Your task to perform on an android device: change notification settings in the gmail app Image 0: 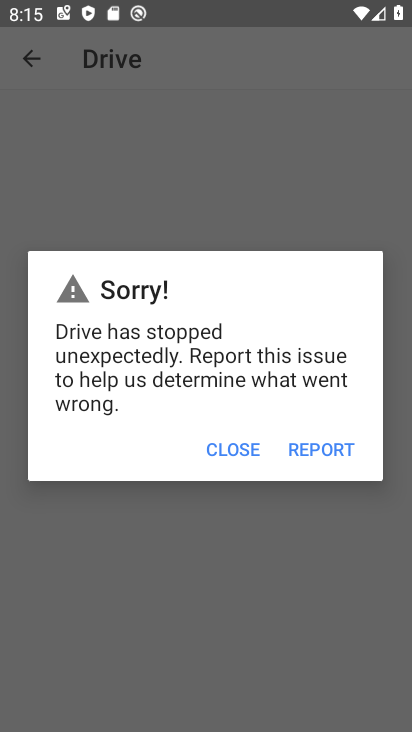
Step 0: press back button
Your task to perform on an android device: change notification settings in the gmail app Image 1: 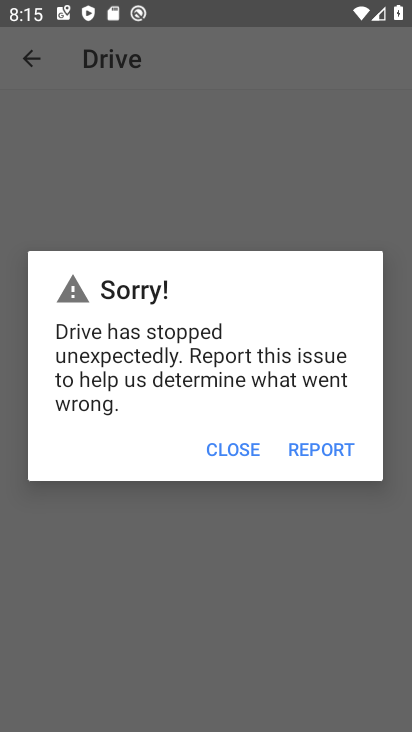
Step 1: press home button
Your task to perform on an android device: change notification settings in the gmail app Image 2: 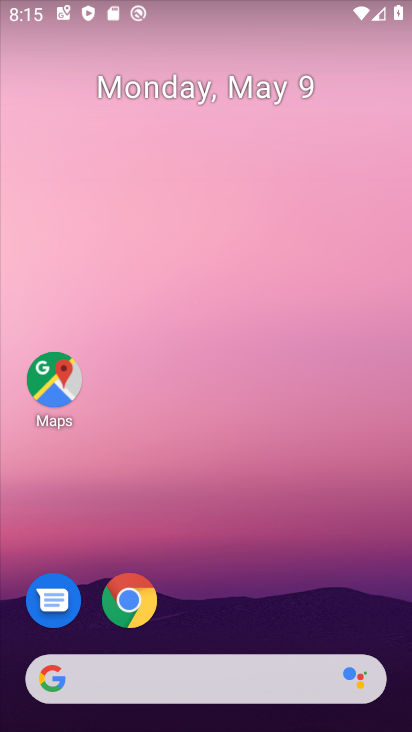
Step 2: drag from (294, 574) to (219, 1)
Your task to perform on an android device: change notification settings in the gmail app Image 3: 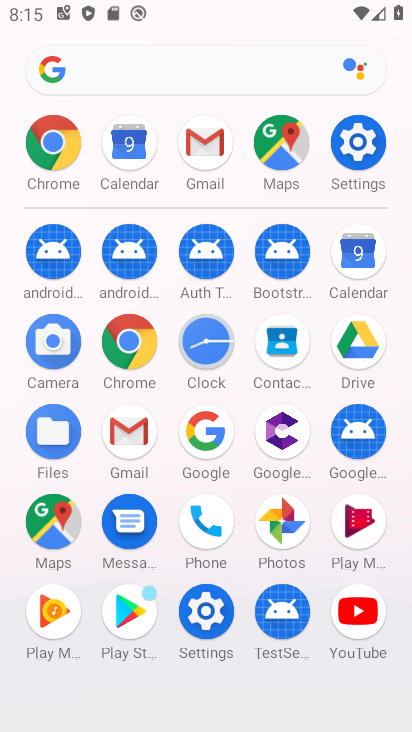
Step 3: click (130, 431)
Your task to perform on an android device: change notification settings in the gmail app Image 4: 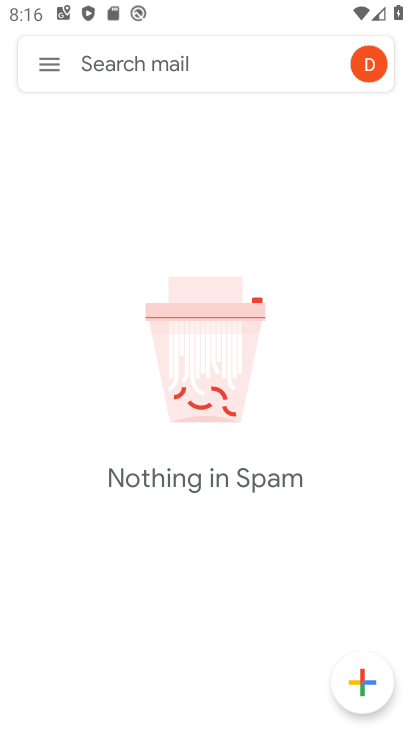
Step 4: press back button
Your task to perform on an android device: change notification settings in the gmail app Image 5: 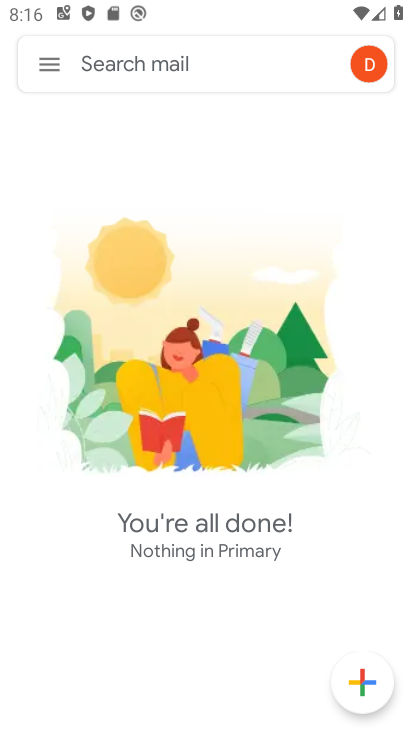
Step 5: press home button
Your task to perform on an android device: change notification settings in the gmail app Image 6: 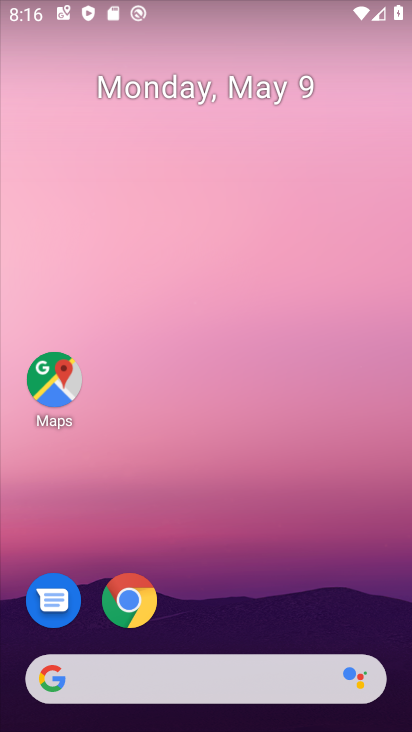
Step 6: drag from (257, 590) to (256, 39)
Your task to perform on an android device: change notification settings in the gmail app Image 7: 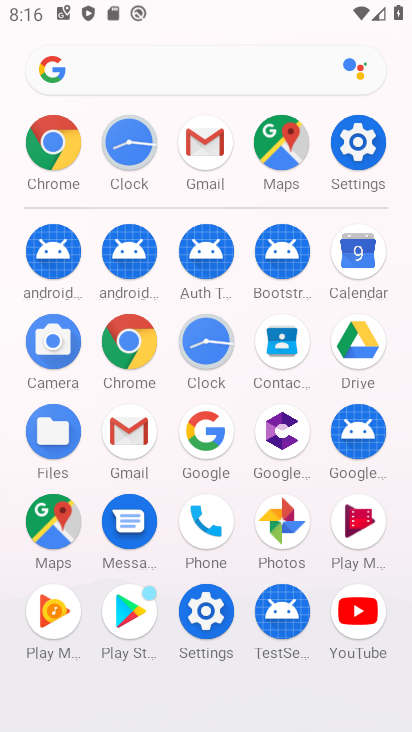
Step 7: click (125, 426)
Your task to perform on an android device: change notification settings in the gmail app Image 8: 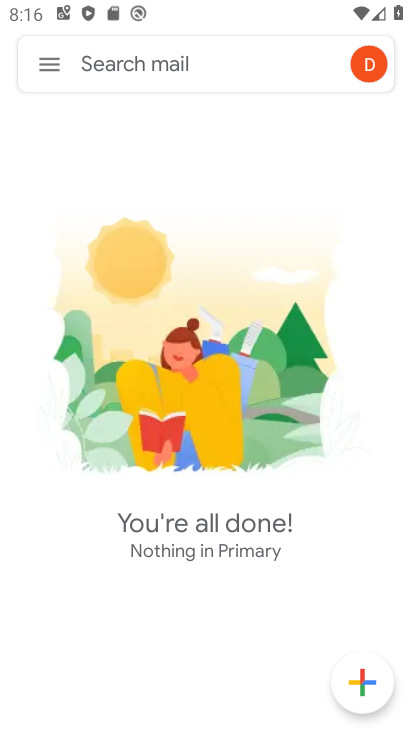
Step 8: click (45, 64)
Your task to perform on an android device: change notification settings in the gmail app Image 9: 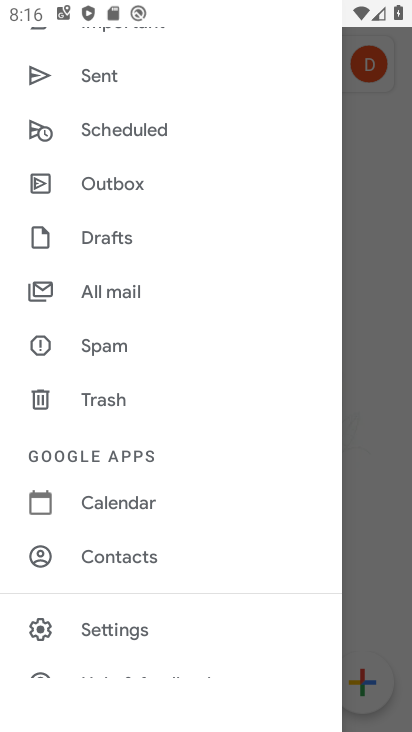
Step 9: click (130, 627)
Your task to perform on an android device: change notification settings in the gmail app Image 10: 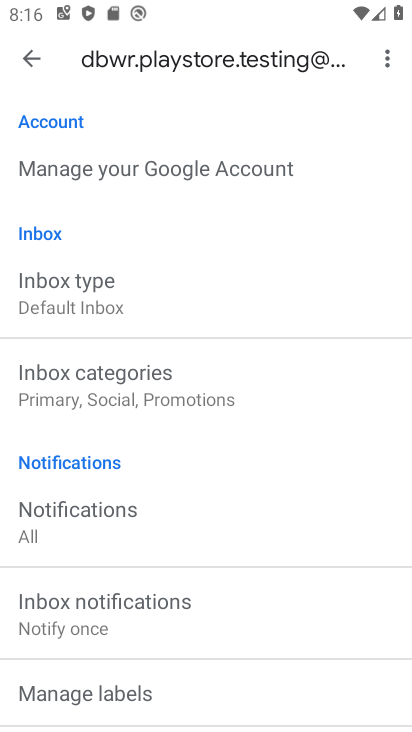
Step 10: drag from (218, 633) to (223, 267)
Your task to perform on an android device: change notification settings in the gmail app Image 11: 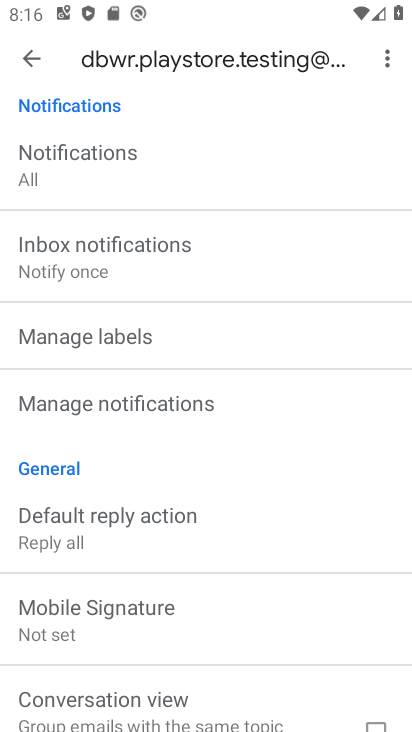
Step 11: click (123, 414)
Your task to perform on an android device: change notification settings in the gmail app Image 12: 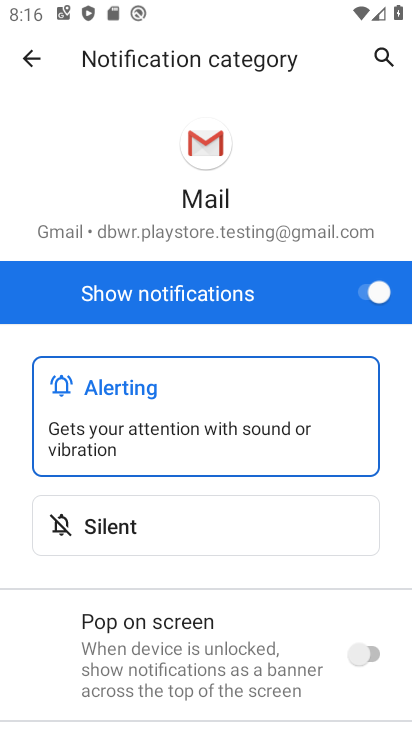
Step 12: task complete